Your task to perform on an android device: Open Google Chrome and click the shortcut for Amazon.com Image 0: 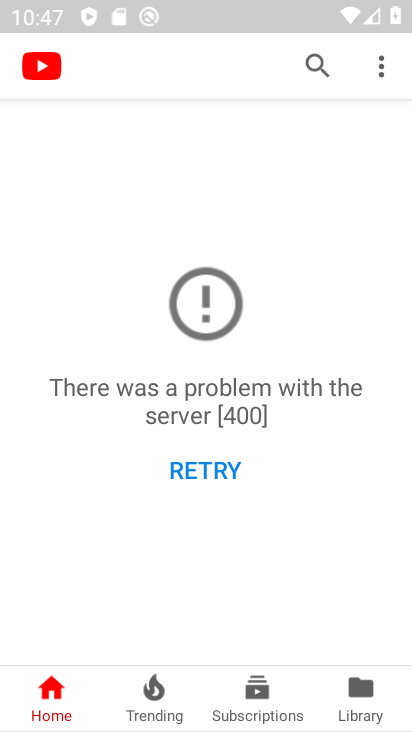
Step 0: press home button
Your task to perform on an android device: Open Google Chrome and click the shortcut for Amazon.com Image 1: 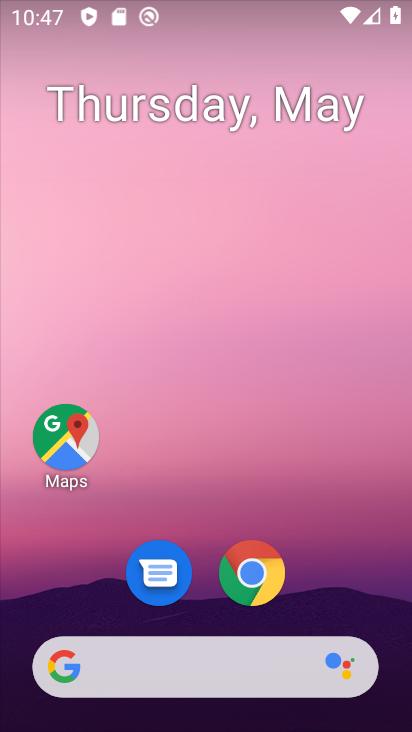
Step 1: click (250, 577)
Your task to perform on an android device: Open Google Chrome and click the shortcut for Amazon.com Image 2: 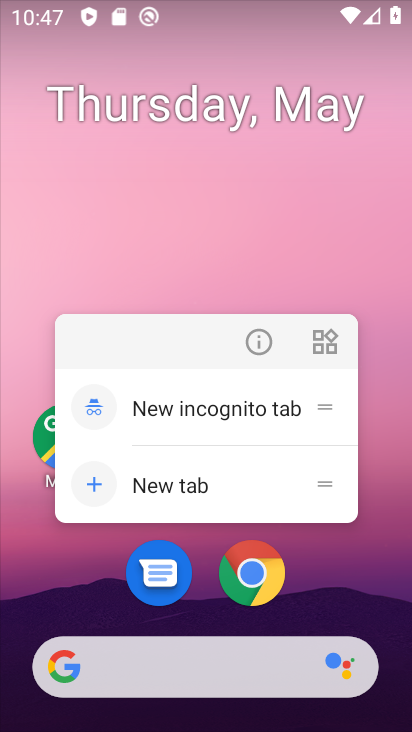
Step 2: click (253, 573)
Your task to perform on an android device: Open Google Chrome and click the shortcut for Amazon.com Image 3: 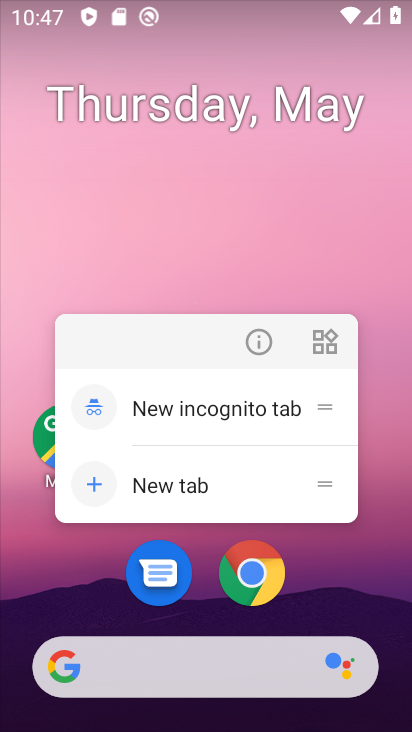
Step 3: click (239, 590)
Your task to perform on an android device: Open Google Chrome and click the shortcut for Amazon.com Image 4: 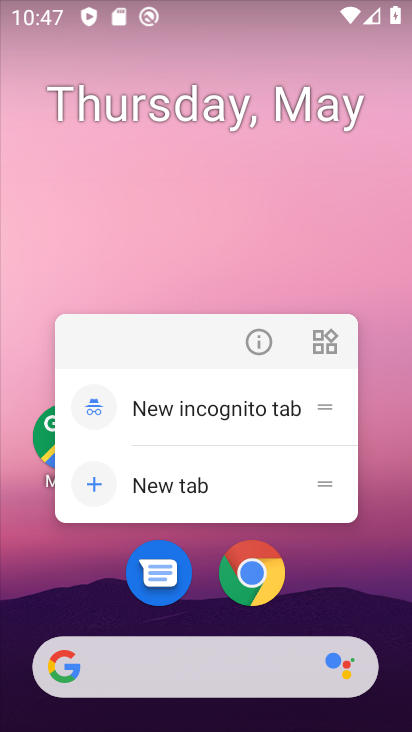
Step 4: click (251, 585)
Your task to perform on an android device: Open Google Chrome and click the shortcut for Amazon.com Image 5: 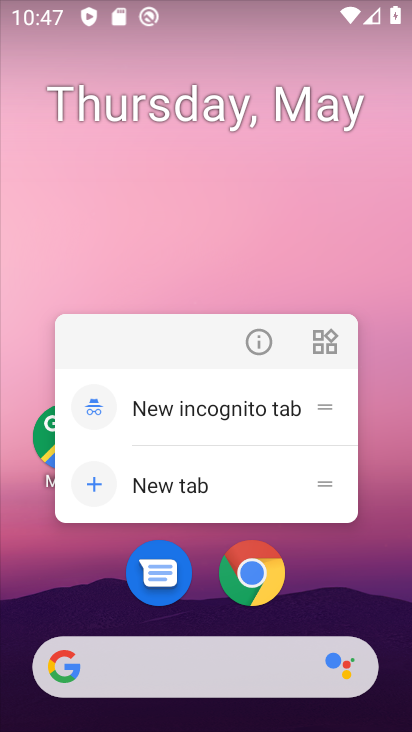
Step 5: click (252, 564)
Your task to perform on an android device: Open Google Chrome and click the shortcut for Amazon.com Image 6: 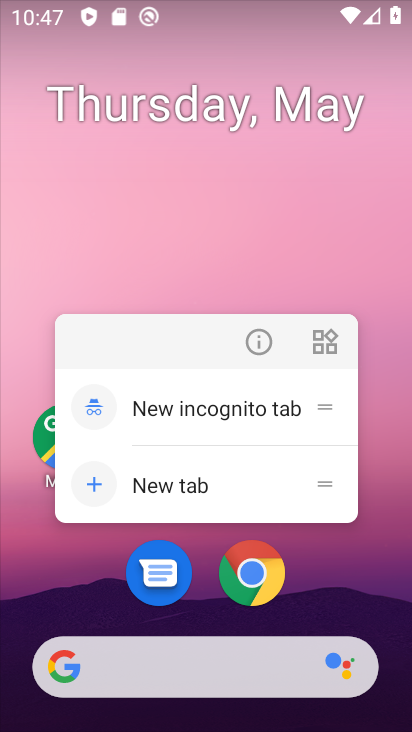
Step 6: click (258, 564)
Your task to perform on an android device: Open Google Chrome and click the shortcut for Amazon.com Image 7: 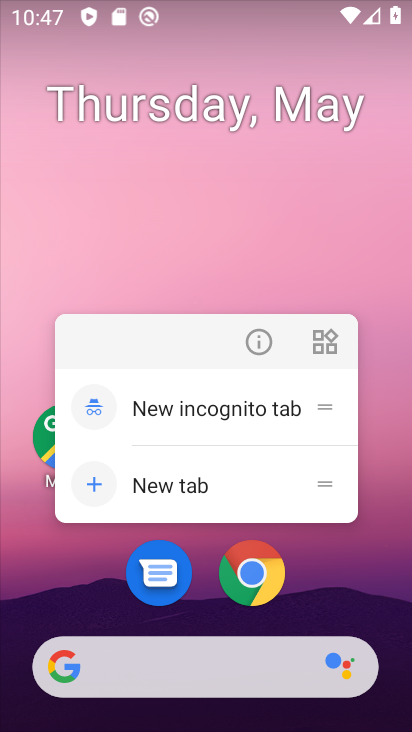
Step 7: click (259, 575)
Your task to perform on an android device: Open Google Chrome and click the shortcut for Amazon.com Image 8: 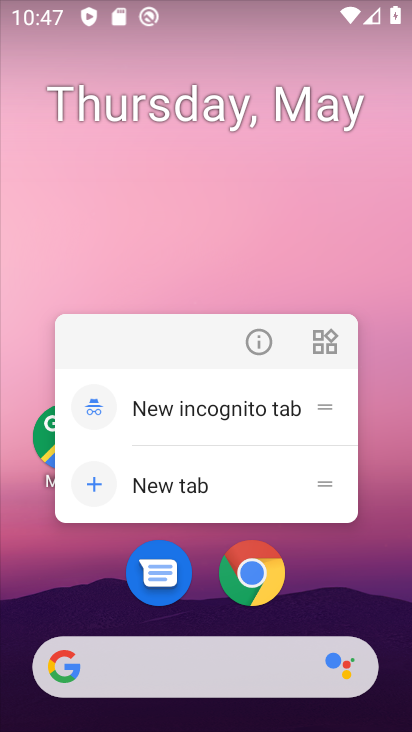
Step 8: click (259, 595)
Your task to perform on an android device: Open Google Chrome and click the shortcut for Amazon.com Image 9: 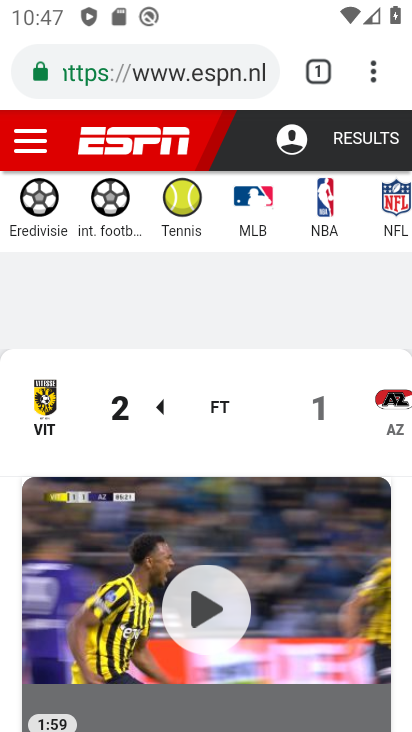
Step 9: drag from (384, 75) to (298, 135)
Your task to perform on an android device: Open Google Chrome and click the shortcut for Amazon.com Image 10: 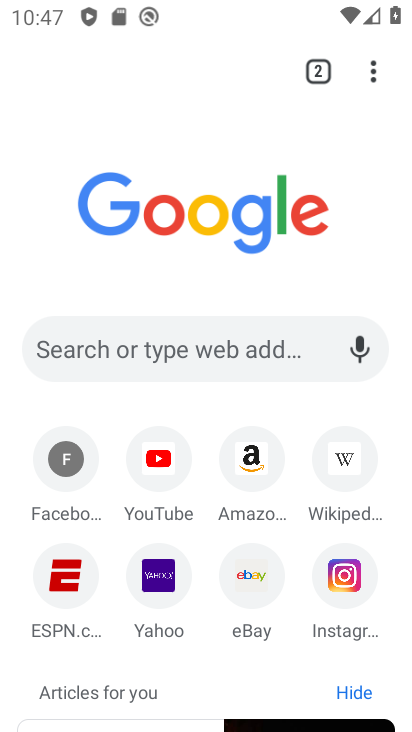
Step 10: click (257, 457)
Your task to perform on an android device: Open Google Chrome and click the shortcut for Amazon.com Image 11: 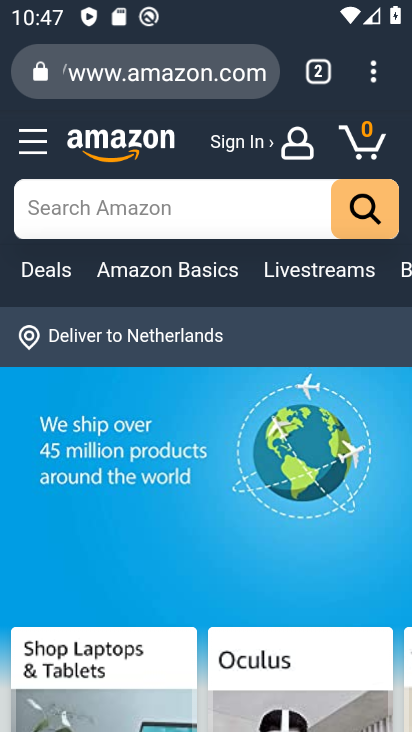
Step 11: task complete